Your task to perform on an android device: add a contact in the contacts app Image 0: 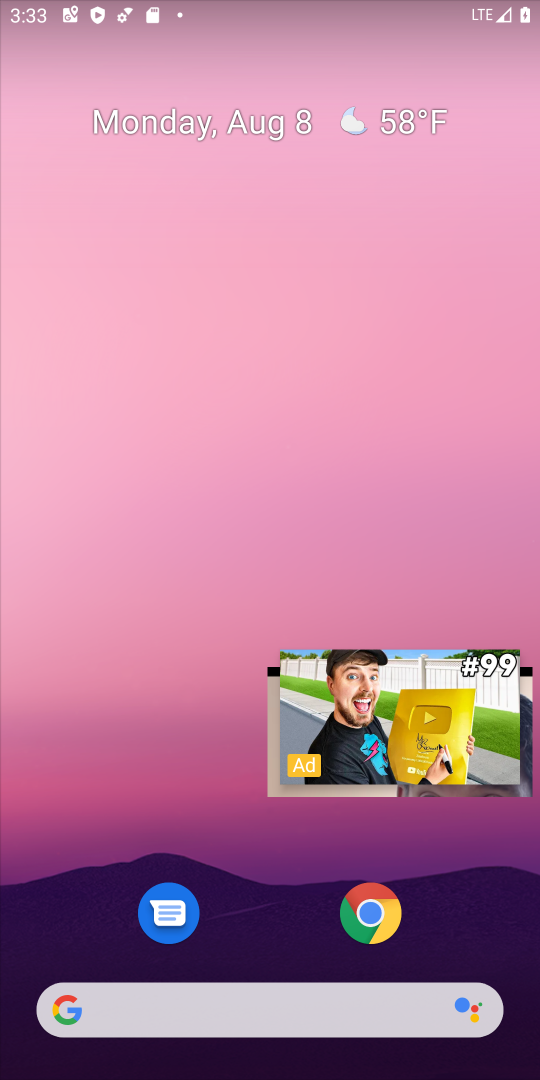
Step 0: press home button
Your task to perform on an android device: add a contact in the contacts app Image 1: 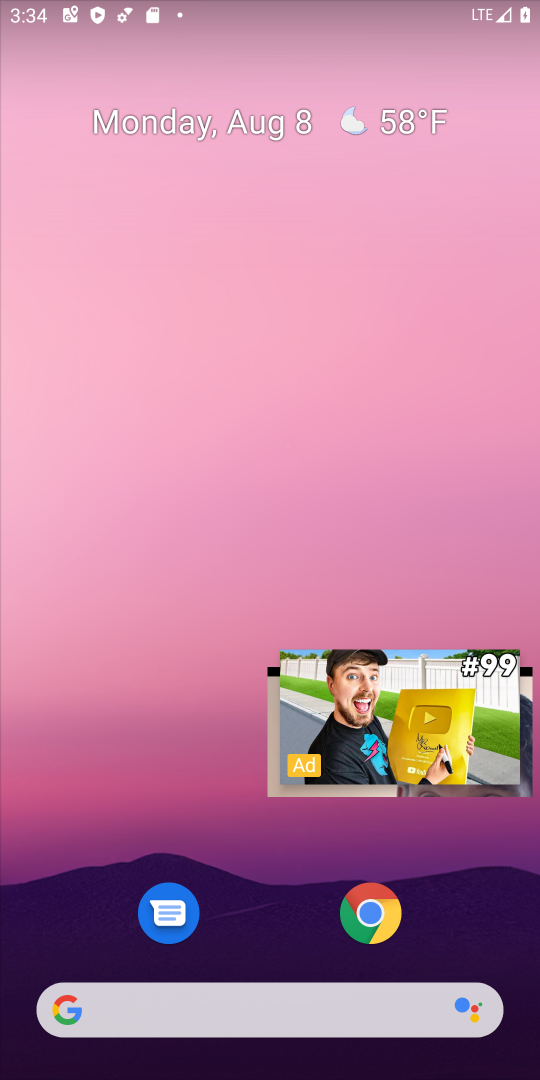
Step 1: drag from (237, 924) to (308, 246)
Your task to perform on an android device: add a contact in the contacts app Image 2: 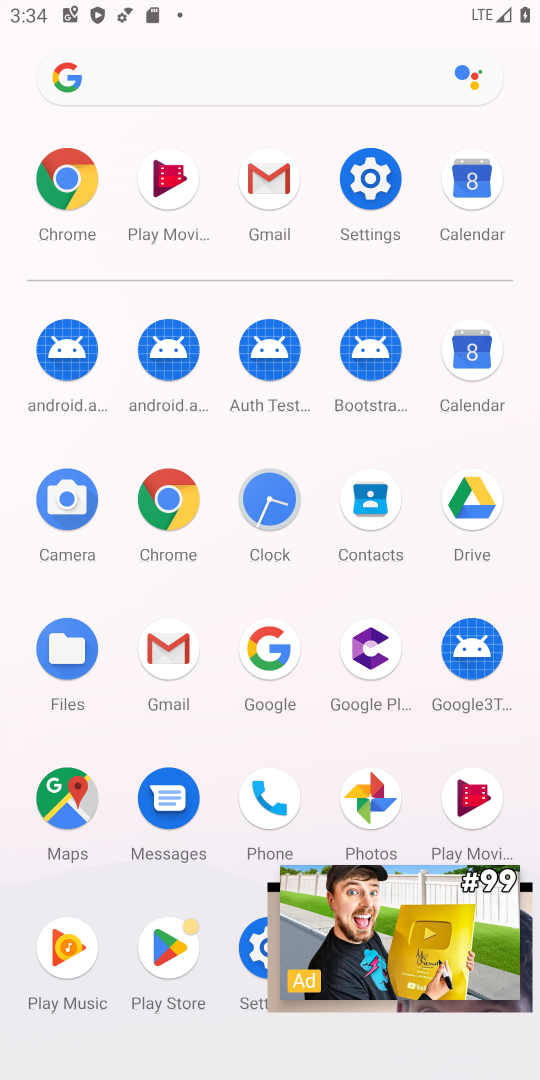
Step 2: click (368, 512)
Your task to perform on an android device: add a contact in the contacts app Image 3: 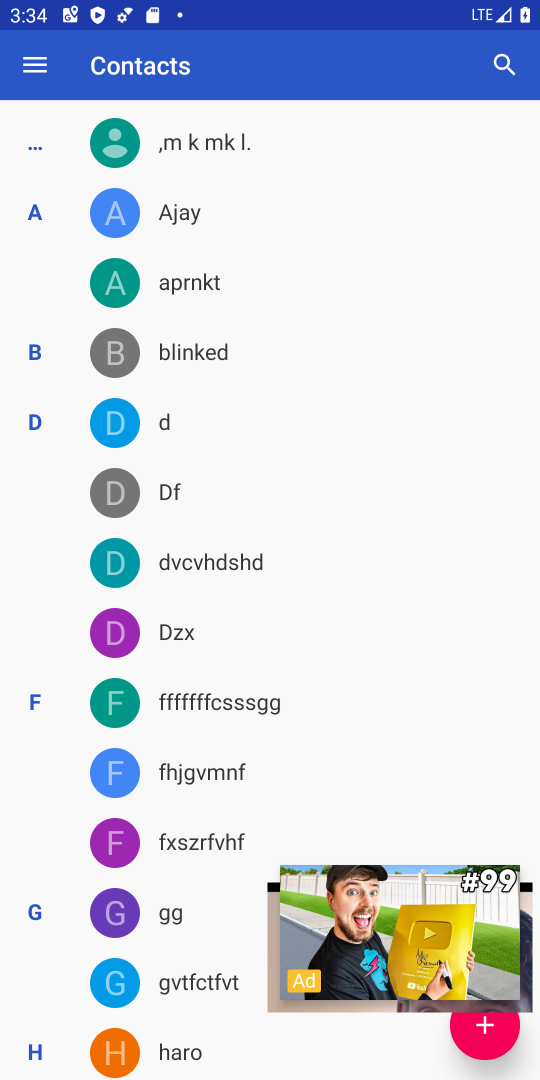
Step 3: click (492, 1033)
Your task to perform on an android device: add a contact in the contacts app Image 4: 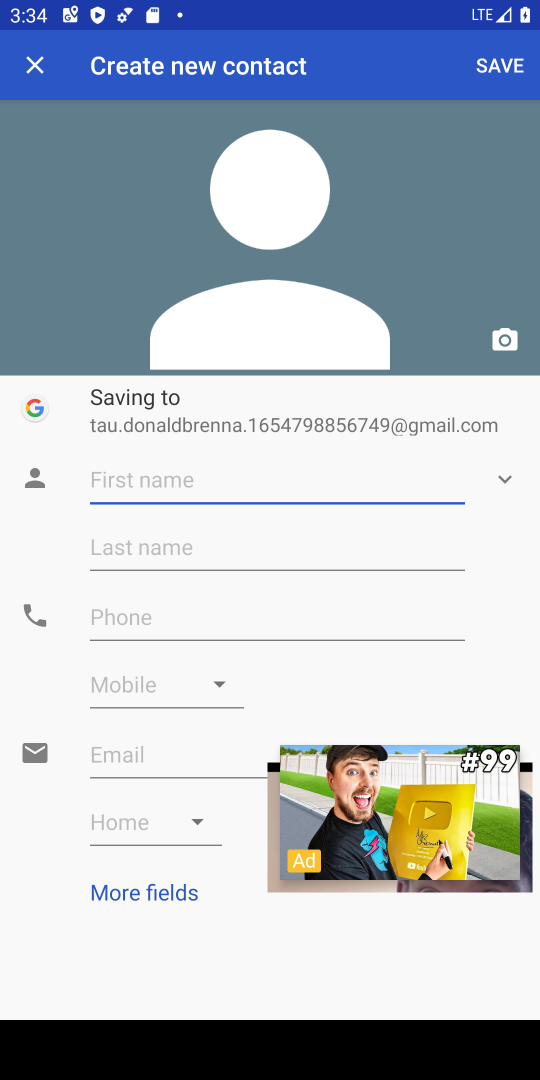
Step 4: click (319, 473)
Your task to perform on an android device: add a contact in the contacts app Image 5: 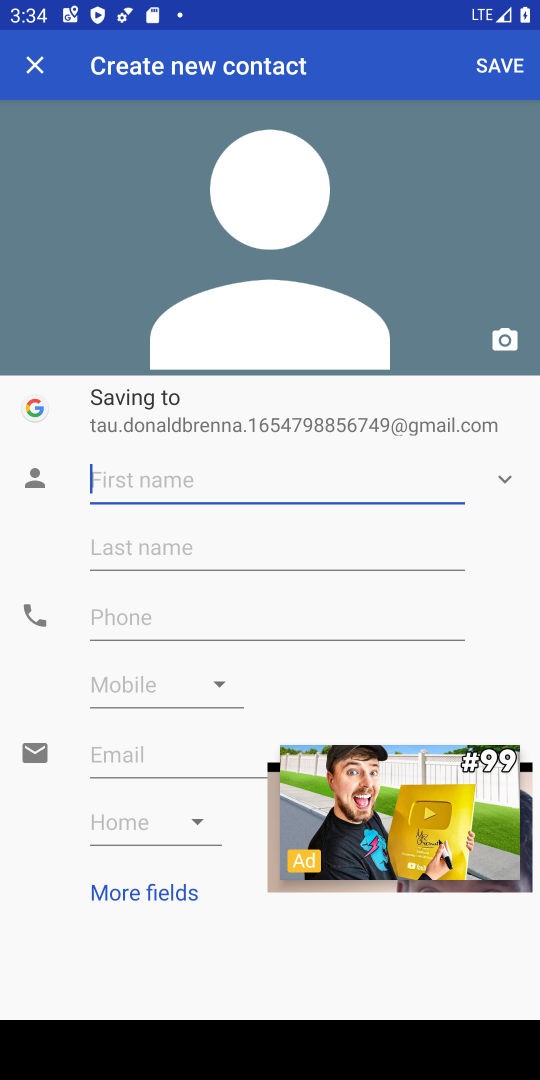
Step 5: type "lololo"
Your task to perform on an android device: add a contact in the contacts app Image 6: 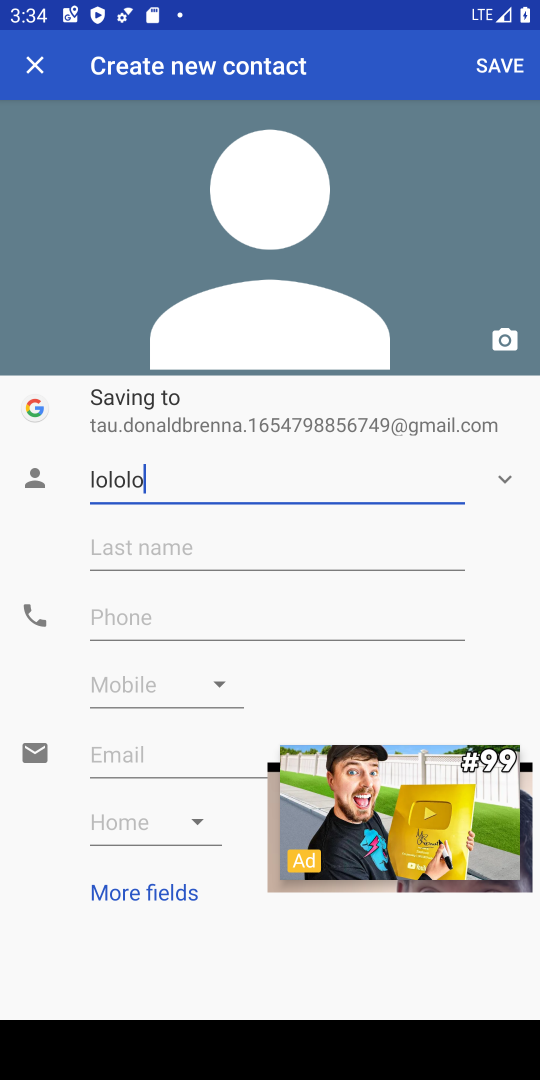
Step 6: click (228, 606)
Your task to perform on an android device: add a contact in the contacts app Image 7: 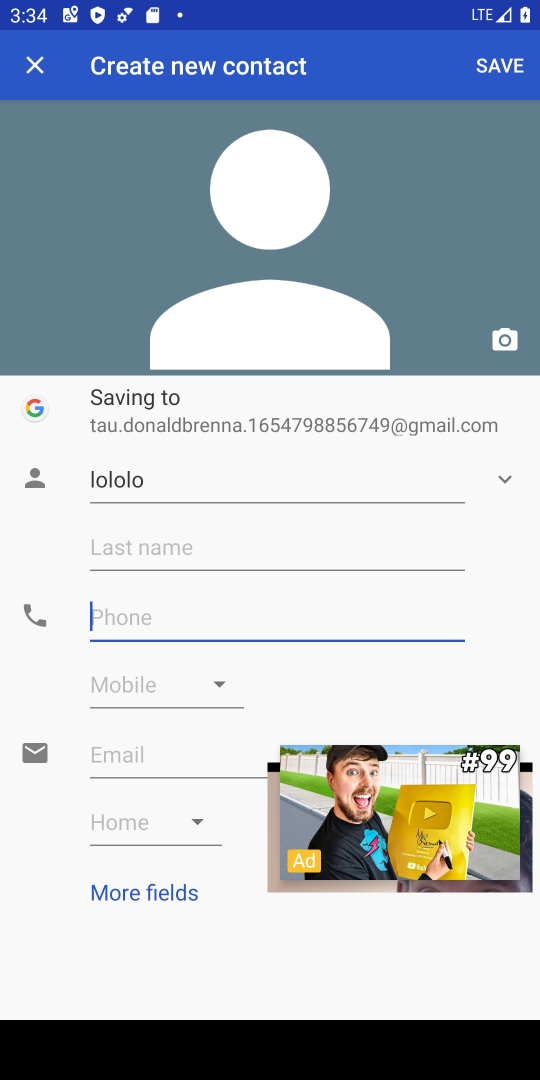
Step 7: type "1234567889"
Your task to perform on an android device: add a contact in the contacts app Image 8: 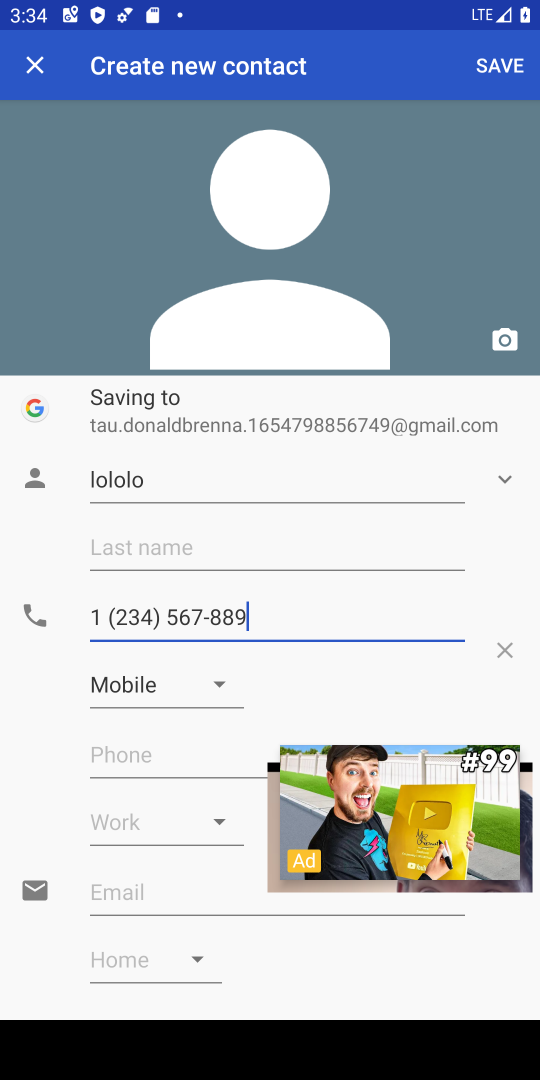
Step 8: click (501, 58)
Your task to perform on an android device: add a contact in the contacts app Image 9: 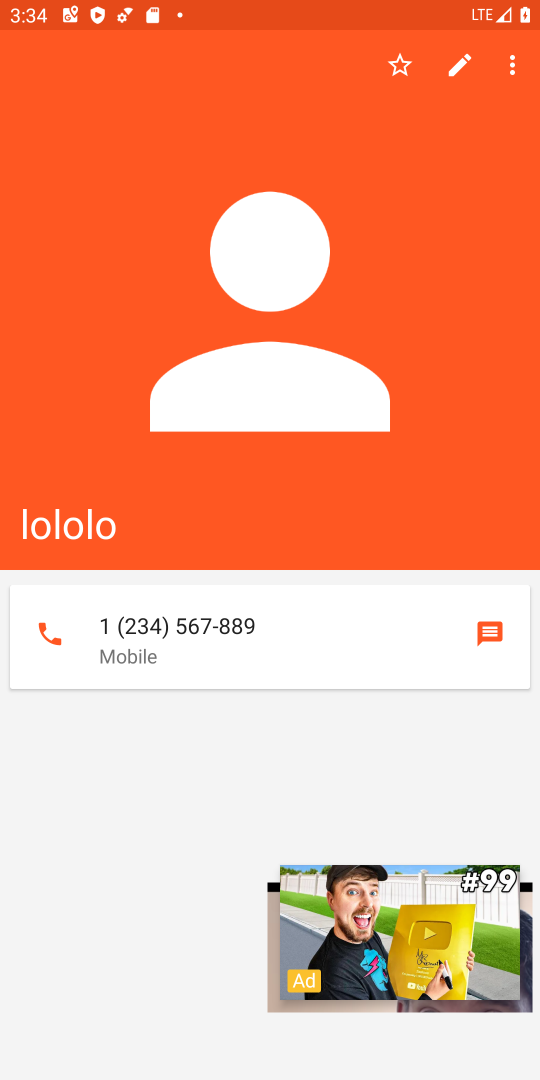
Step 9: task complete